Your task to perform on an android device: Open maps Image 0: 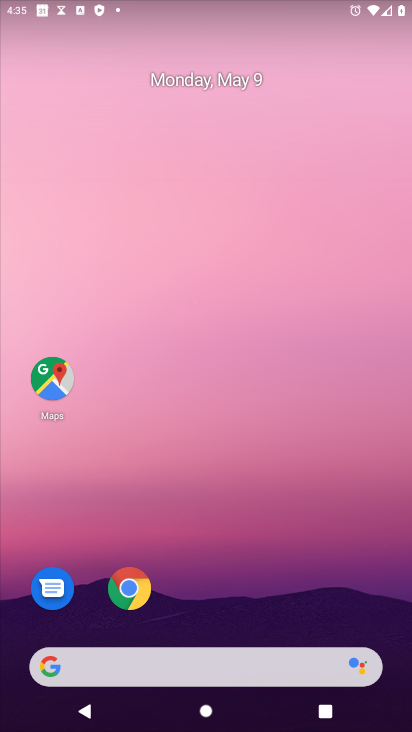
Step 0: click (34, 375)
Your task to perform on an android device: Open maps Image 1: 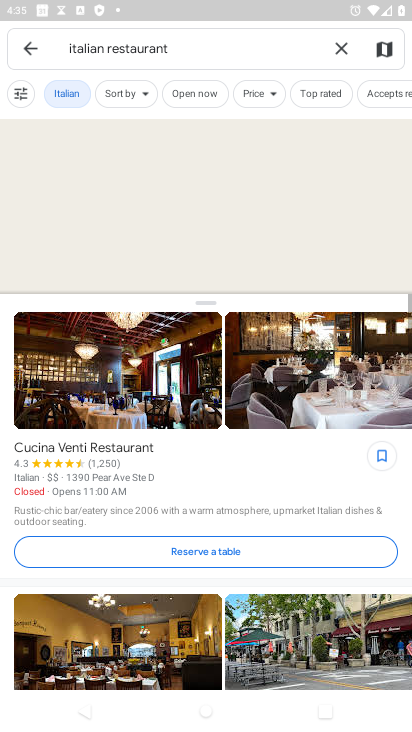
Step 1: task complete